Your task to perform on an android device: snooze an email in the gmail app Image 0: 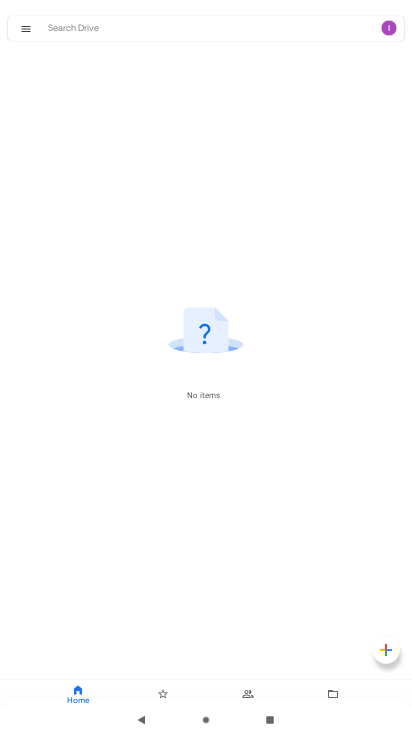
Step 0: press home button
Your task to perform on an android device: snooze an email in the gmail app Image 1: 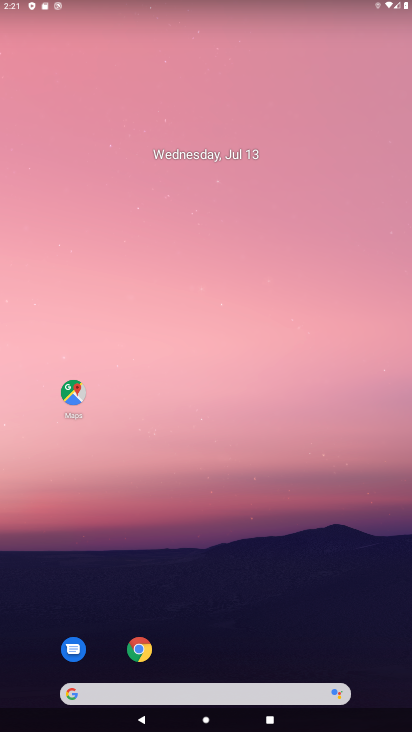
Step 1: drag from (224, 547) to (149, 83)
Your task to perform on an android device: snooze an email in the gmail app Image 2: 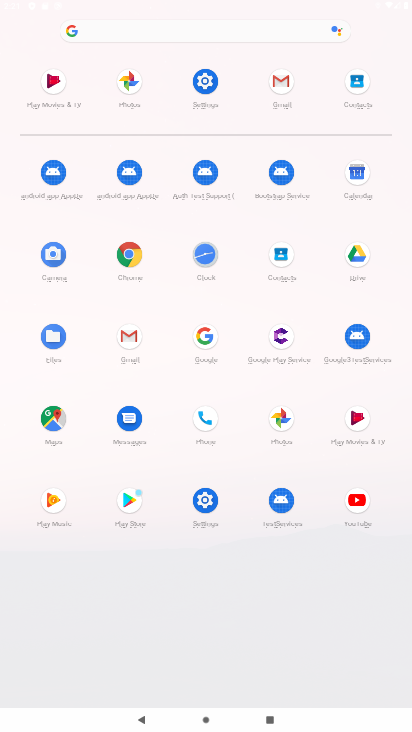
Step 2: click (128, 334)
Your task to perform on an android device: snooze an email in the gmail app Image 3: 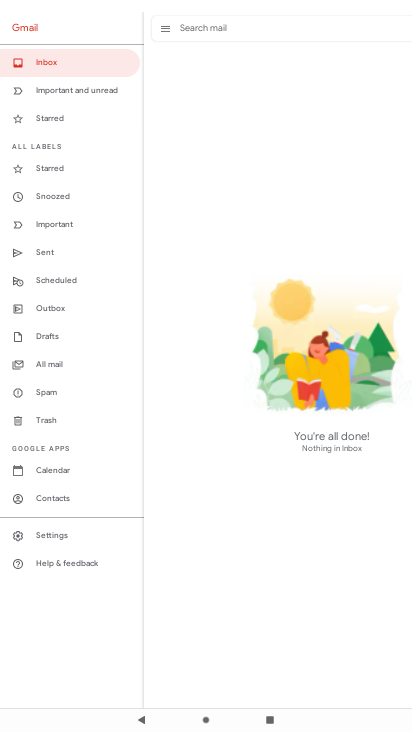
Step 3: task complete